Your task to perform on an android device: Go to ESPN.com Image 0: 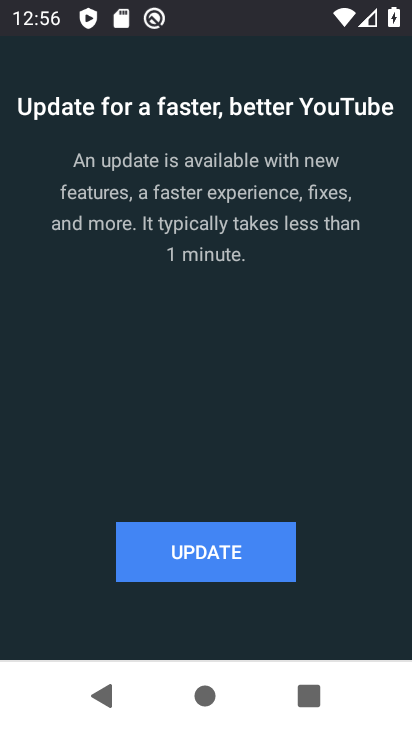
Step 0: press home button
Your task to perform on an android device: Go to ESPN.com Image 1: 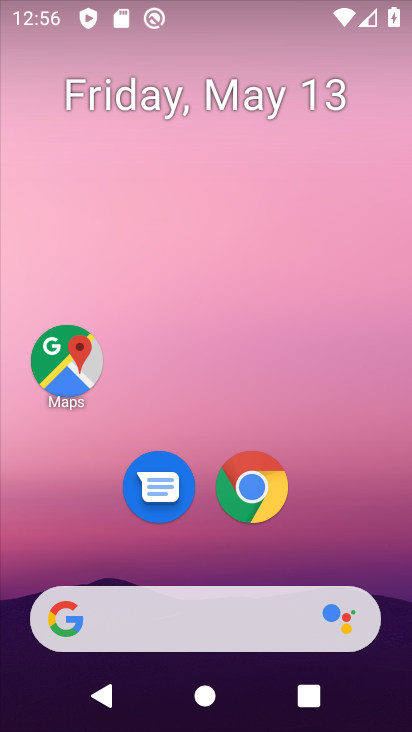
Step 1: drag from (366, 524) to (349, 188)
Your task to perform on an android device: Go to ESPN.com Image 2: 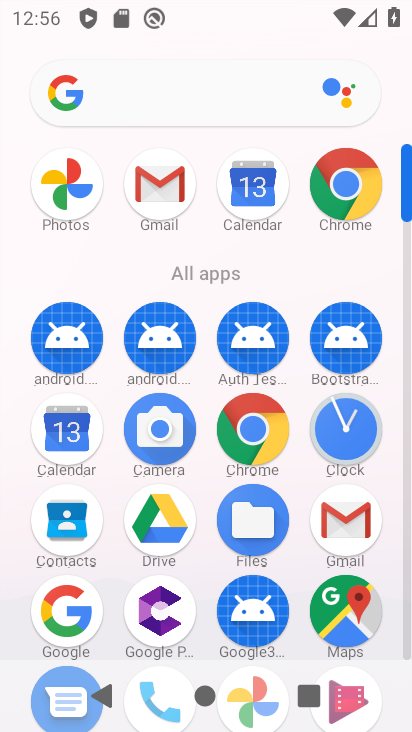
Step 2: click (349, 184)
Your task to perform on an android device: Go to ESPN.com Image 3: 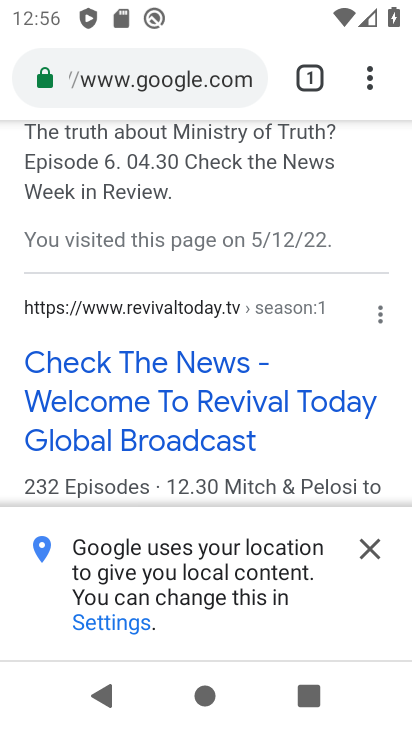
Step 3: click (184, 93)
Your task to perform on an android device: Go to ESPN.com Image 4: 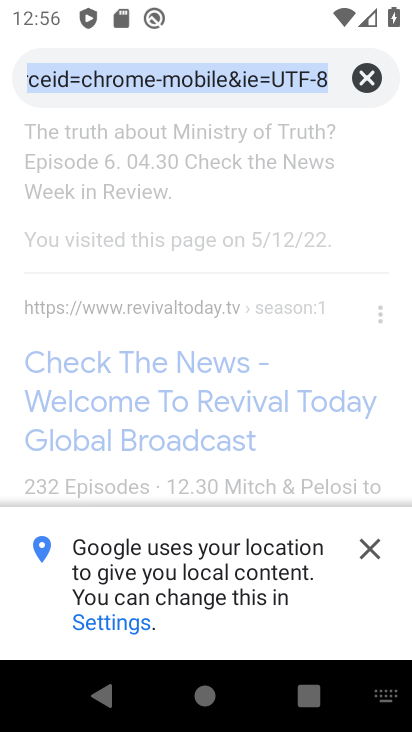
Step 4: click (366, 76)
Your task to perform on an android device: Go to ESPN.com Image 5: 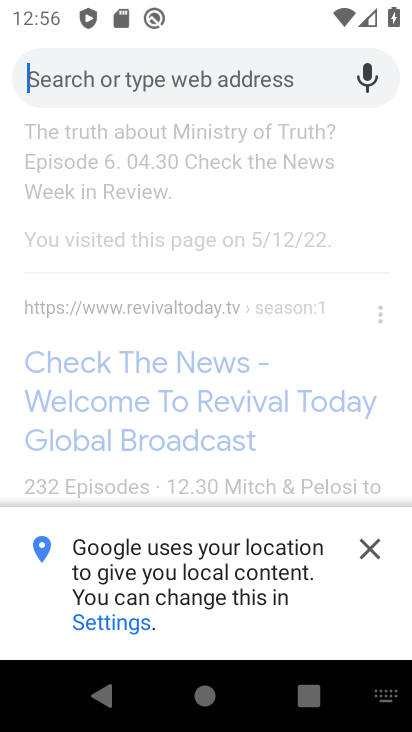
Step 5: type "espn.com"
Your task to perform on an android device: Go to ESPN.com Image 6: 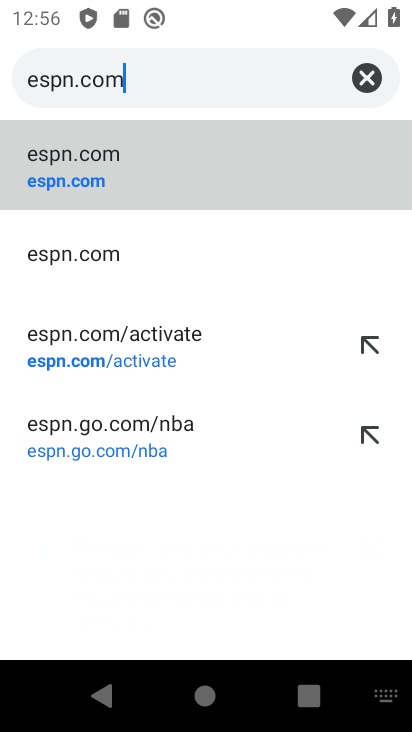
Step 6: click (79, 167)
Your task to perform on an android device: Go to ESPN.com Image 7: 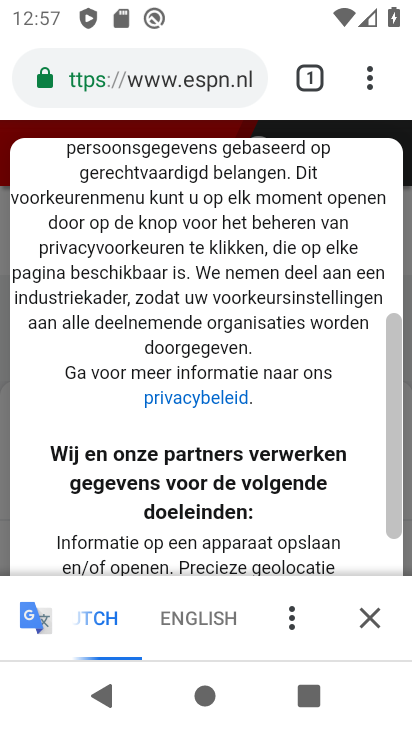
Step 7: task complete